Your task to perform on an android device: toggle wifi Image 0: 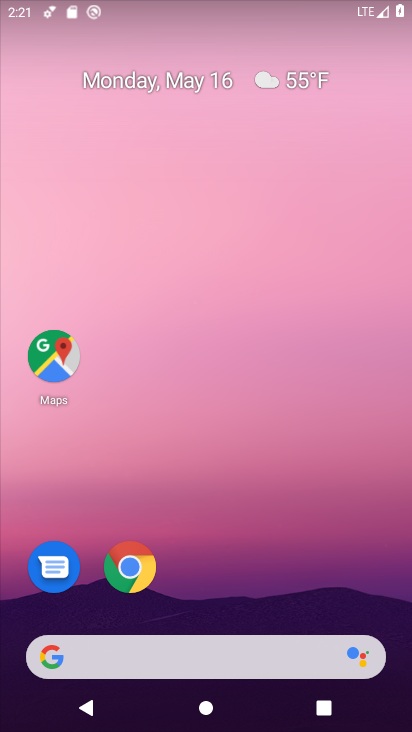
Step 0: drag from (356, 8) to (340, 525)
Your task to perform on an android device: toggle wifi Image 1: 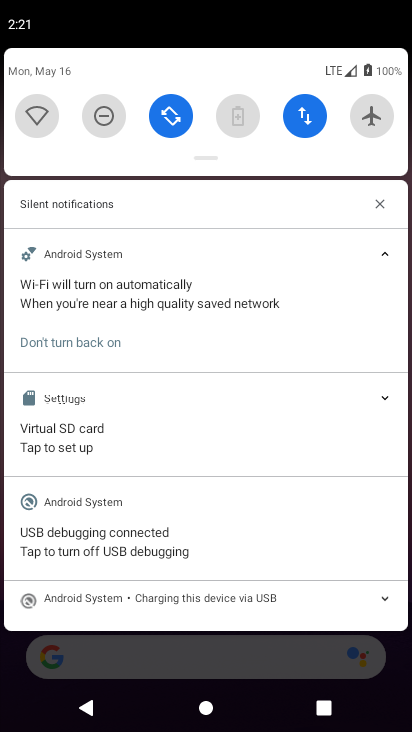
Step 1: click (46, 110)
Your task to perform on an android device: toggle wifi Image 2: 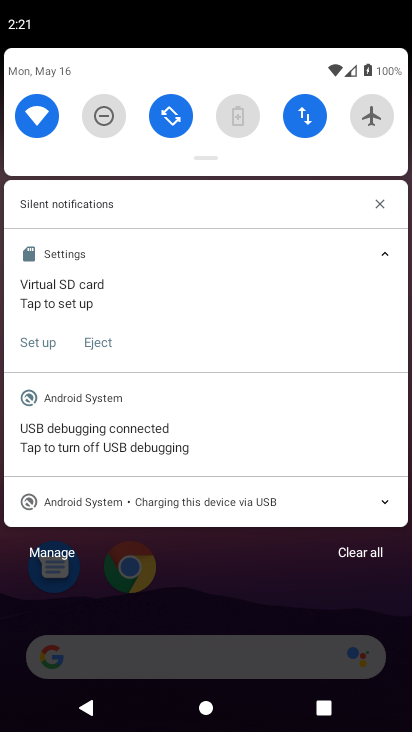
Step 2: task complete